Your task to perform on an android device: Search for the best books on Goodreads Image 0: 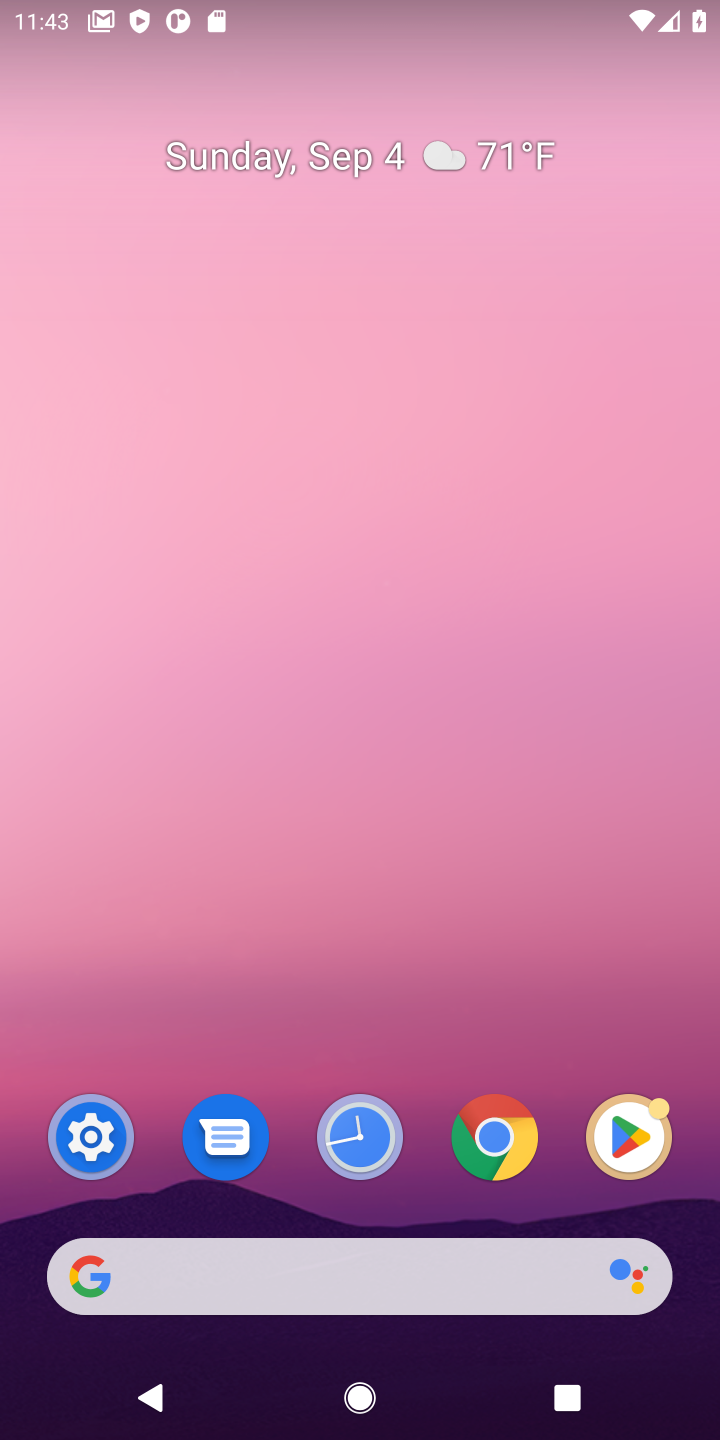
Step 0: click (491, 1150)
Your task to perform on an android device: Search for the best books on Goodreads Image 1: 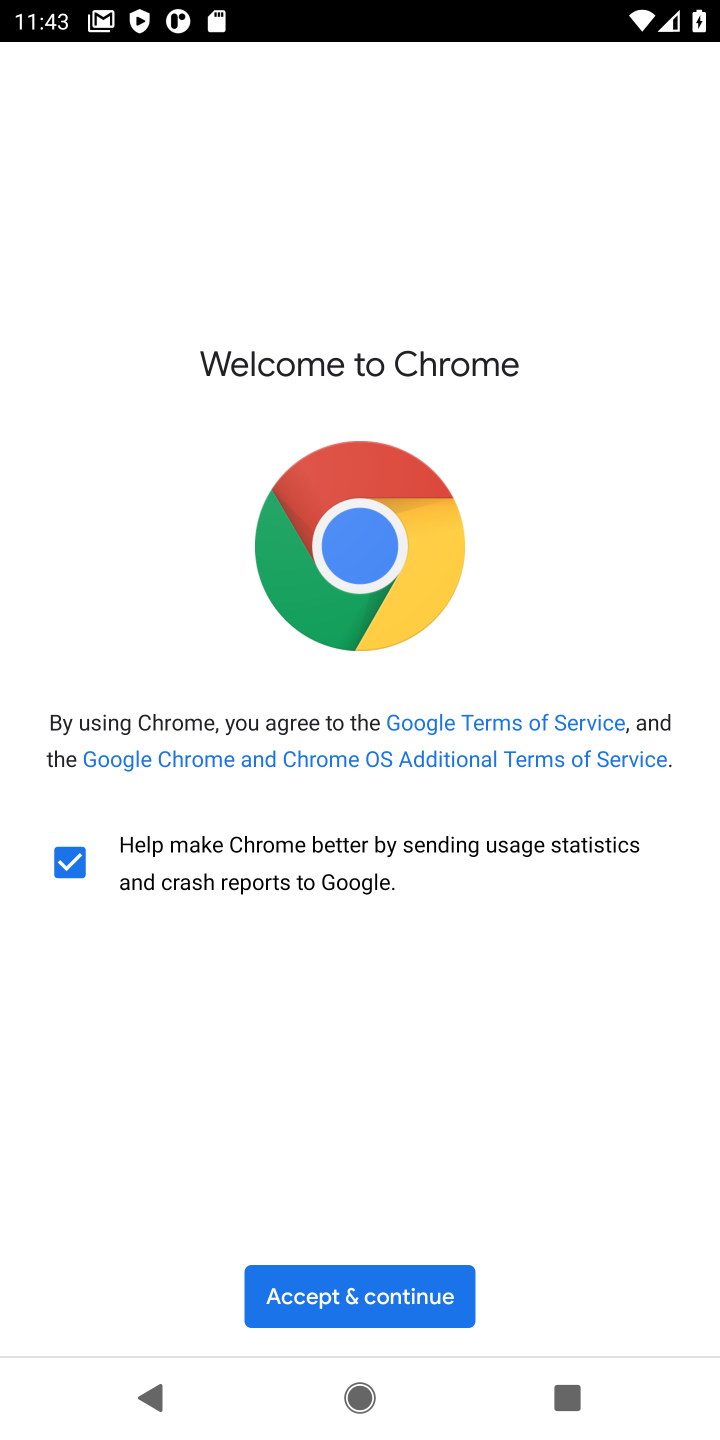
Step 1: click (312, 1297)
Your task to perform on an android device: Search for the best books on Goodreads Image 2: 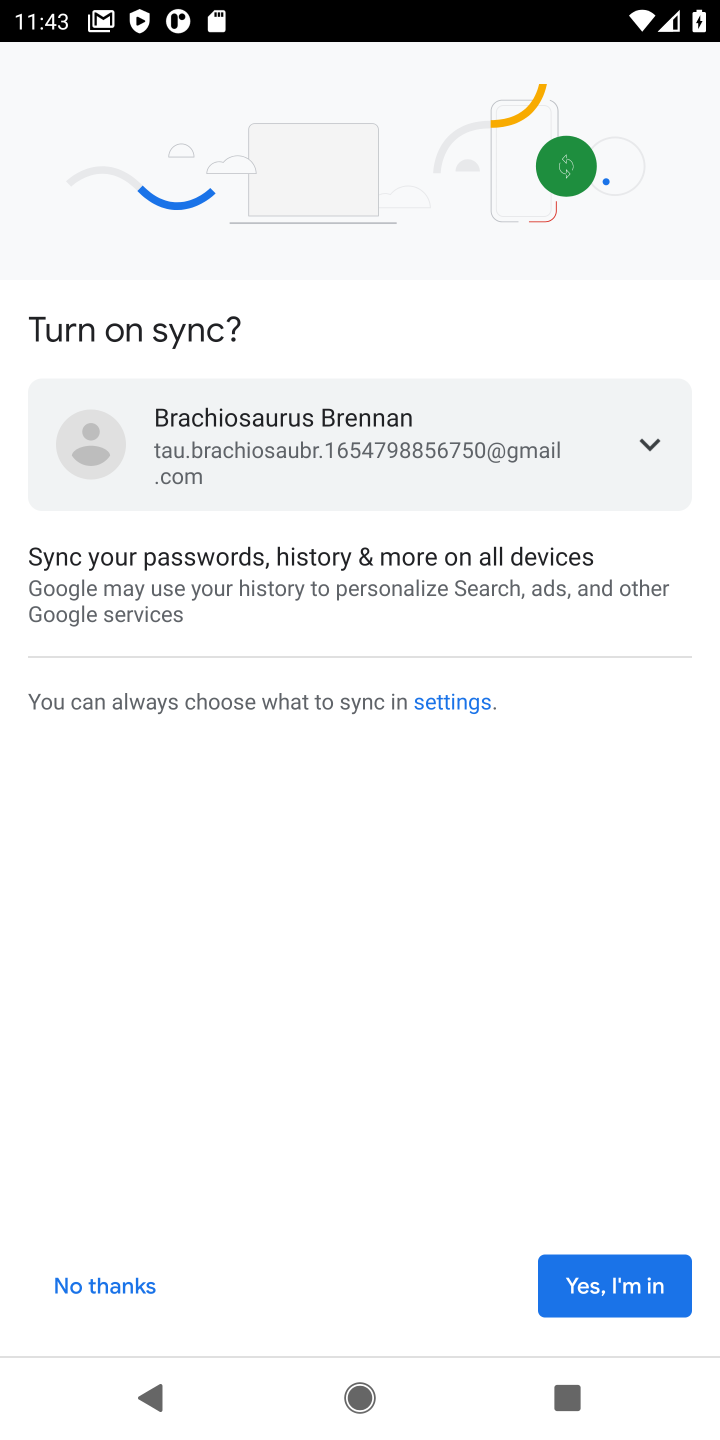
Step 2: click (628, 1283)
Your task to perform on an android device: Search for the best books on Goodreads Image 3: 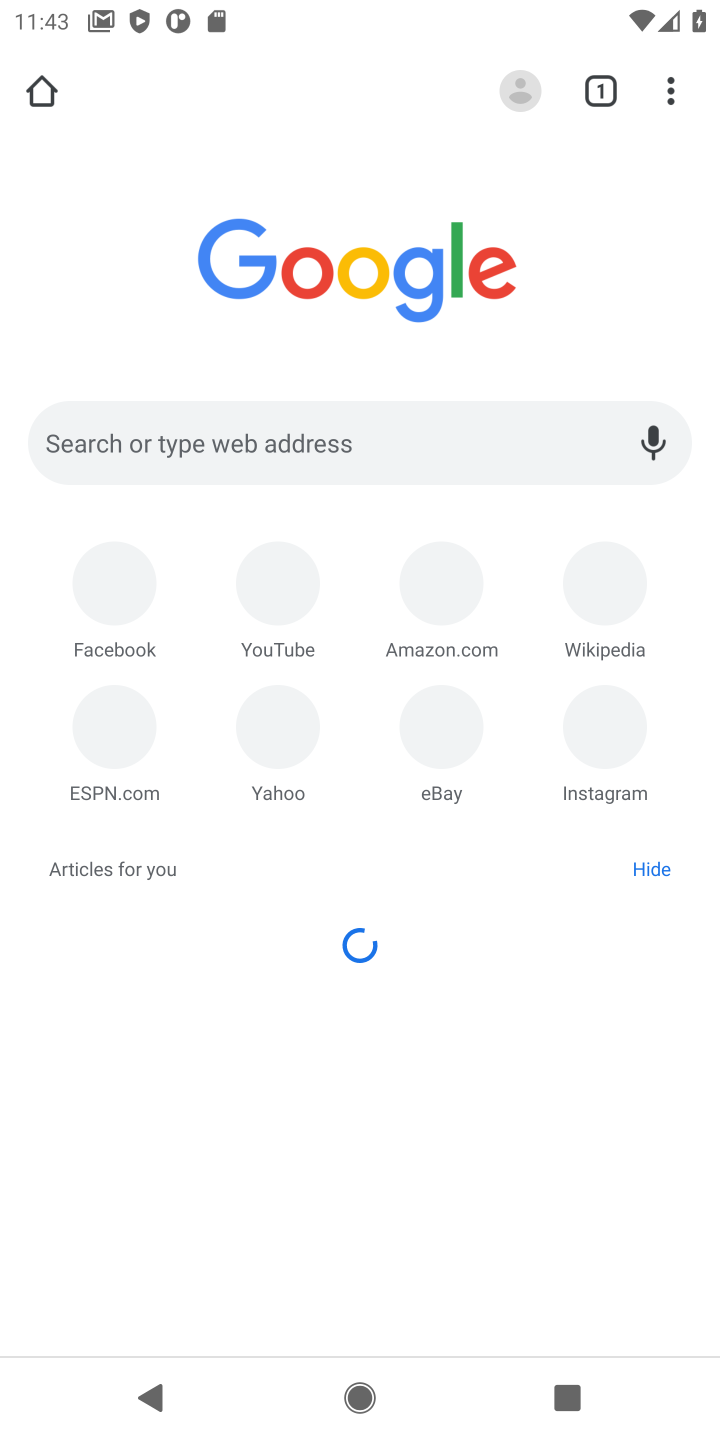
Step 3: click (303, 438)
Your task to perform on an android device: Search for the best books on Goodreads Image 4: 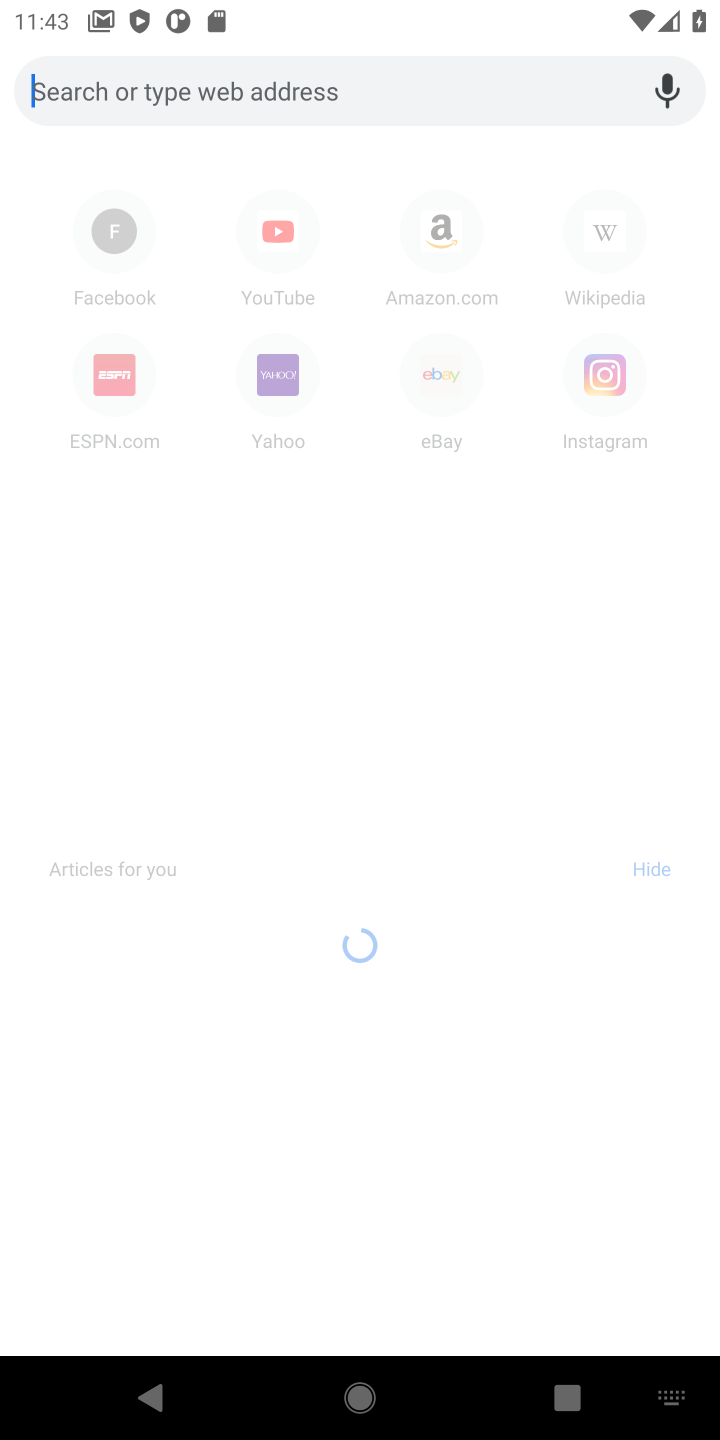
Step 4: click (372, 86)
Your task to perform on an android device: Search for the best books on Goodreads Image 5: 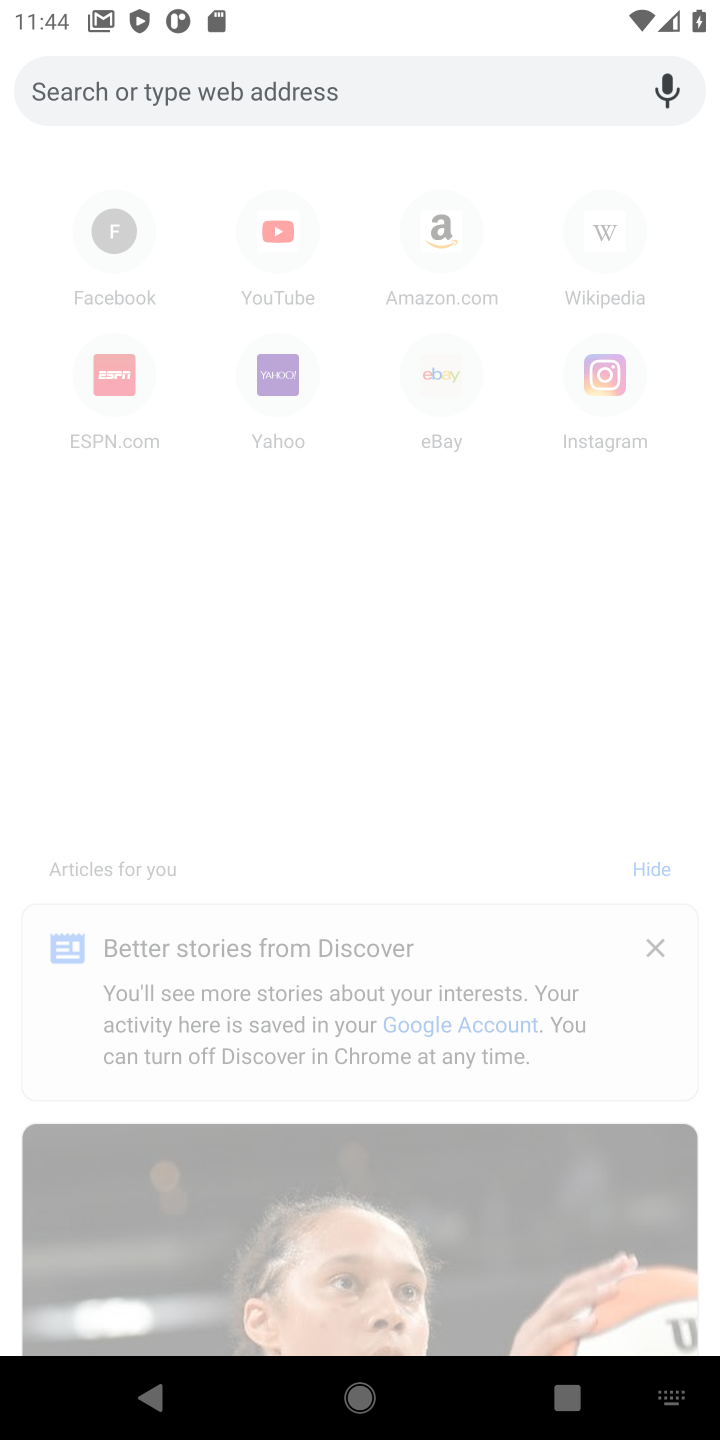
Step 5: type "goodreads"
Your task to perform on an android device: Search for the best books on Goodreads Image 6: 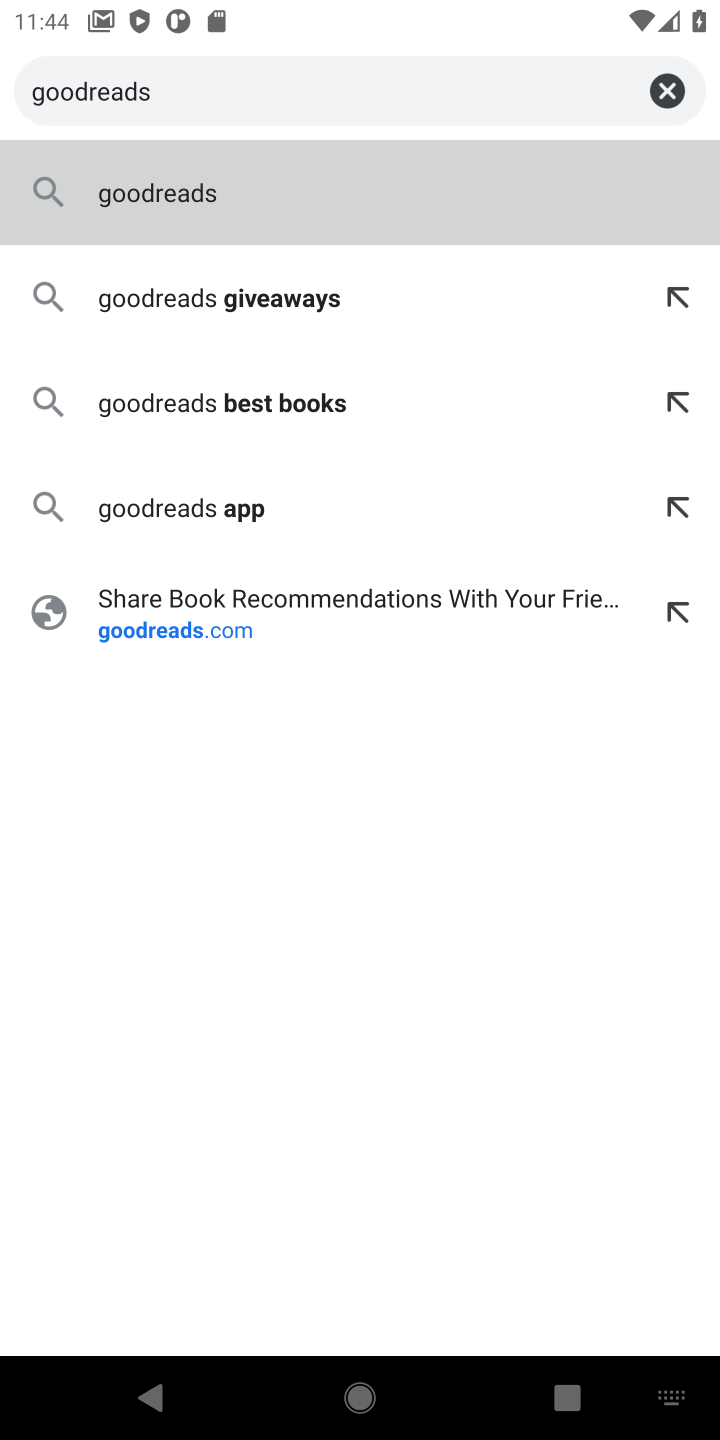
Step 6: click (229, 191)
Your task to perform on an android device: Search for the best books on Goodreads Image 7: 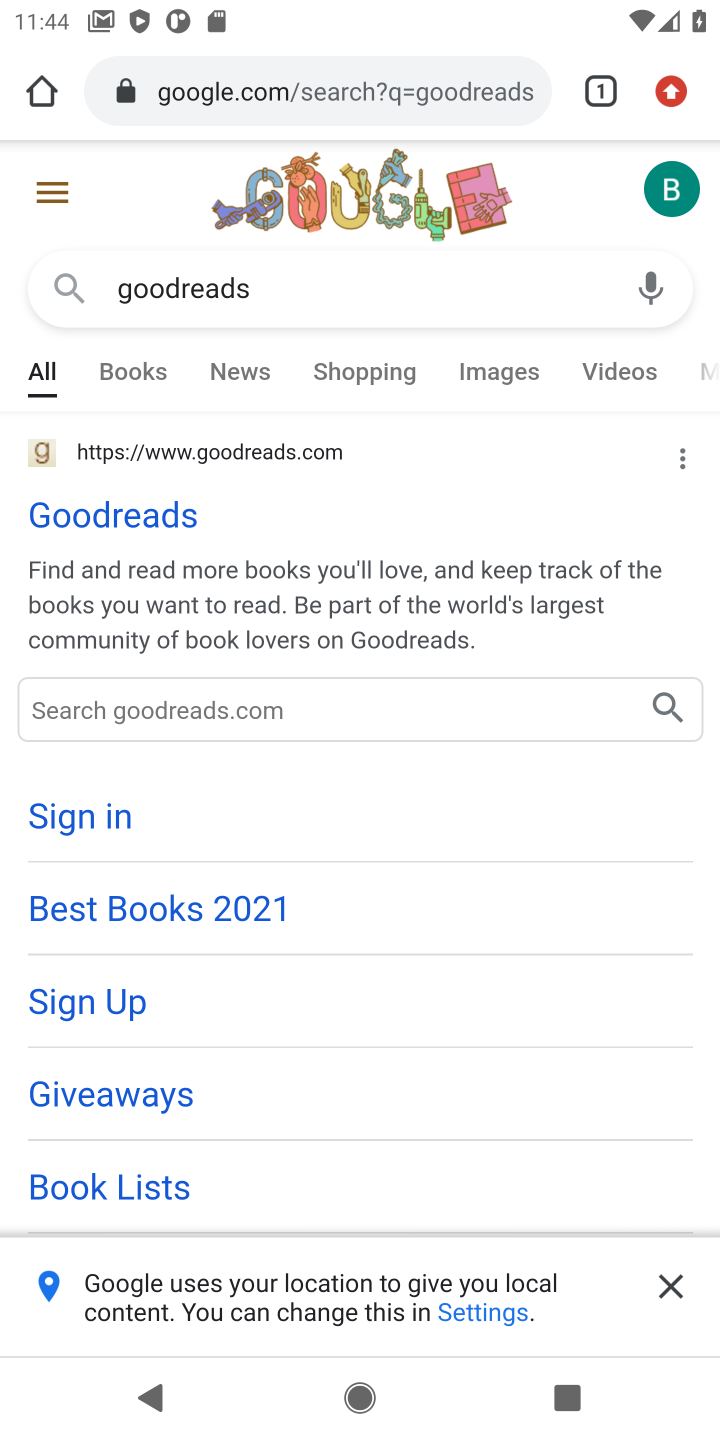
Step 7: click (114, 521)
Your task to perform on an android device: Search for the best books on Goodreads Image 8: 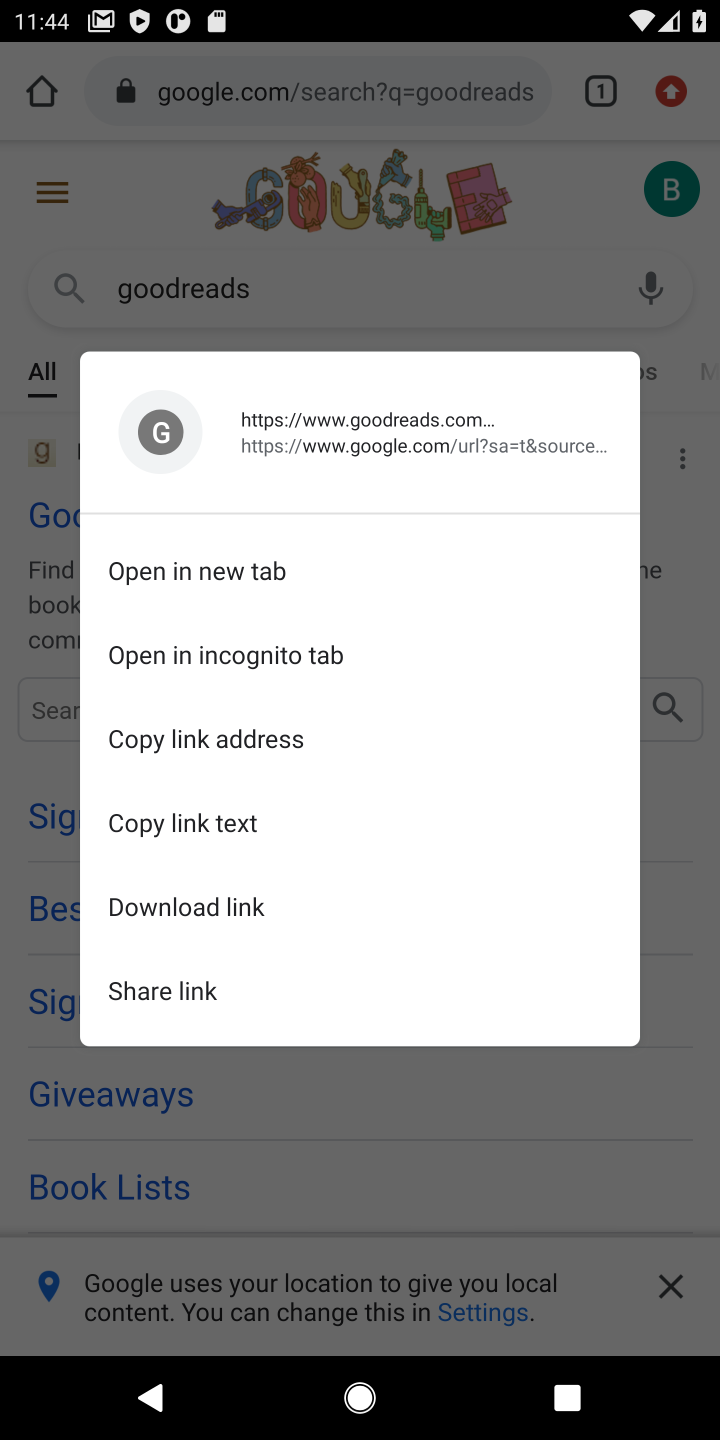
Step 8: click (481, 1102)
Your task to perform on an android device: Search for the best books on Goodreads Image 9: 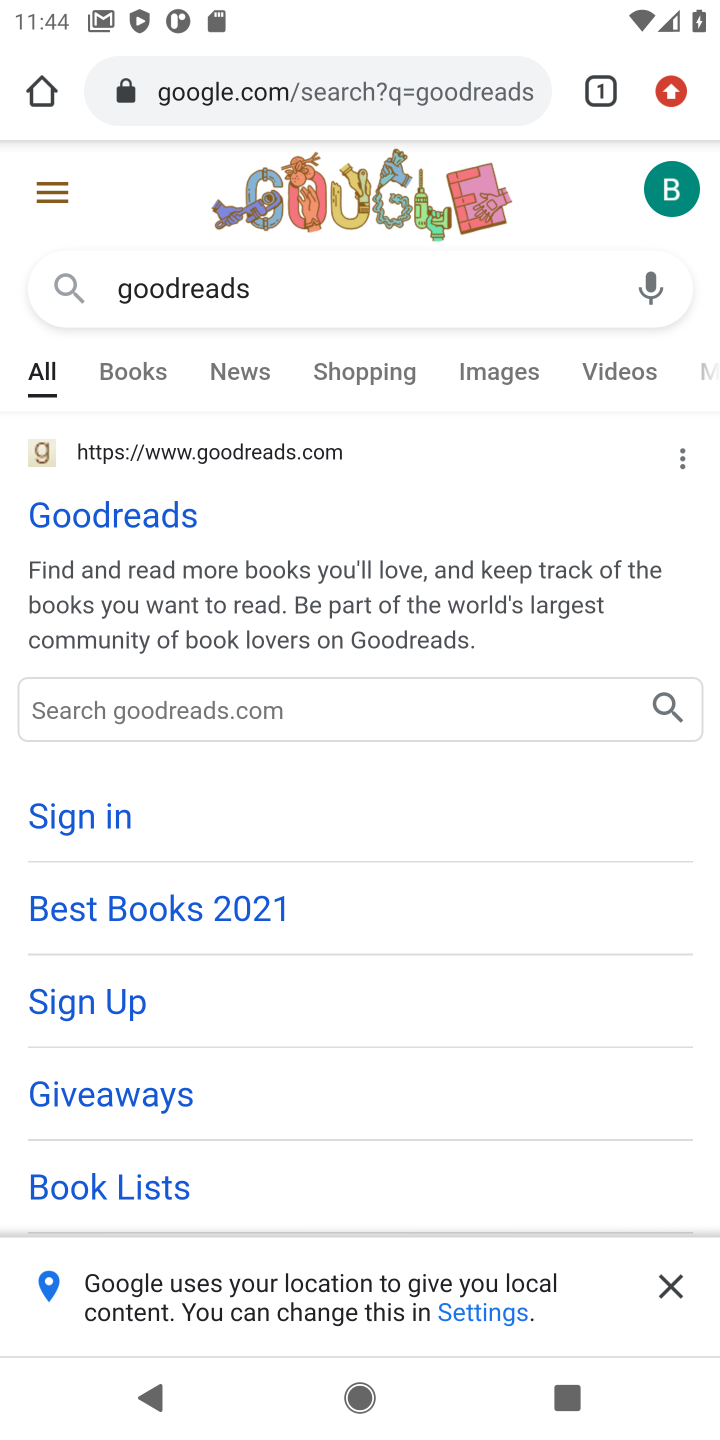
Step 9: click (123, 521)
Your task to perform on an android device: Search for the best books on Goodreads Image 10: 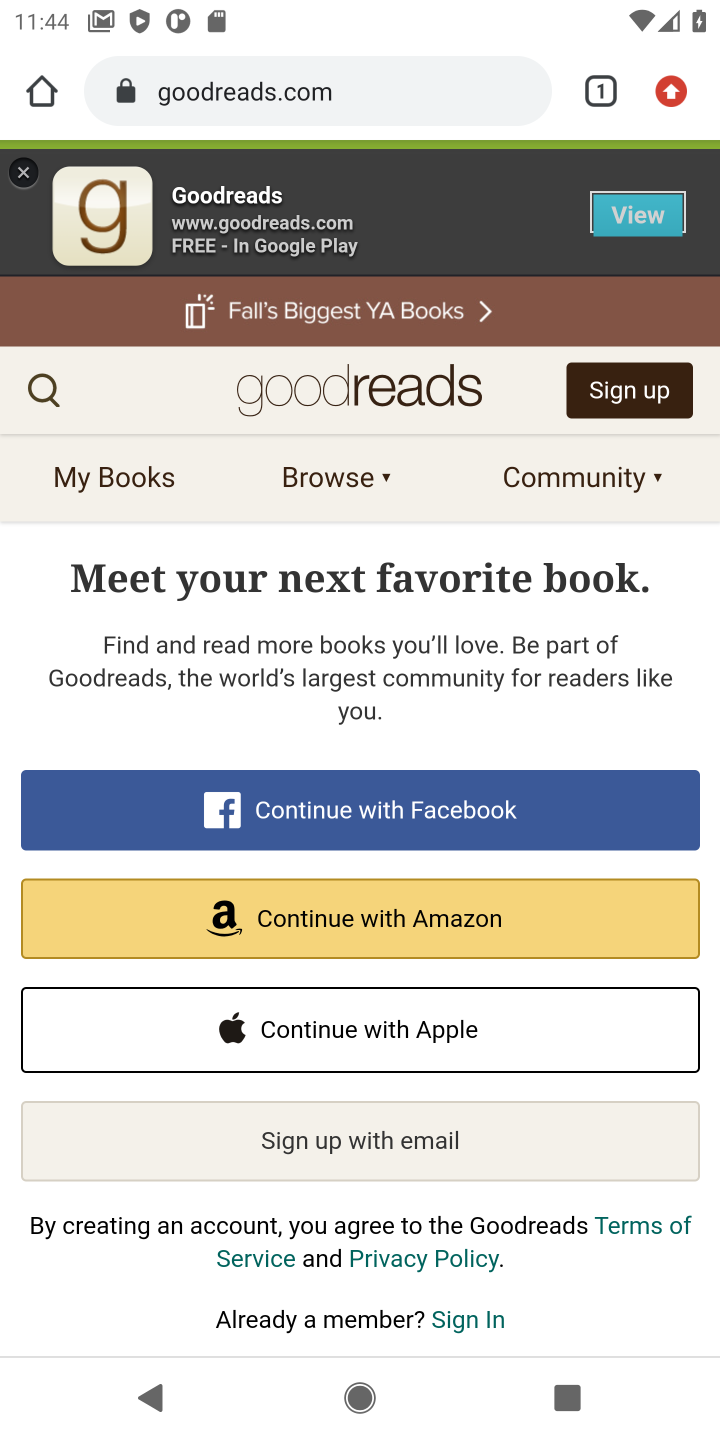
Step 10: click (260, 914)
Your task to perform on an android device: Search for the best books on Goodreads Image 11: 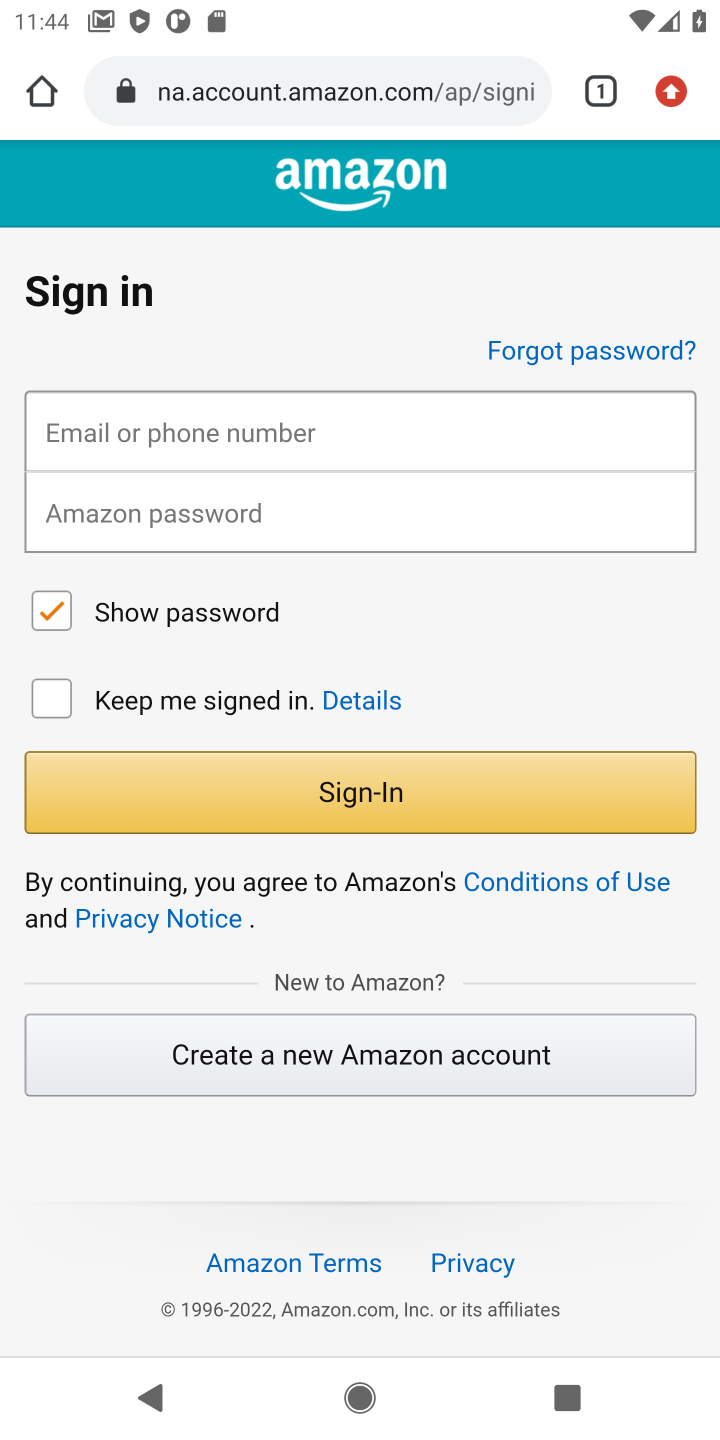
Step 11: task complete